Your task to perform on an android device: uninstall "DoorDash - Dasher" Image 0: 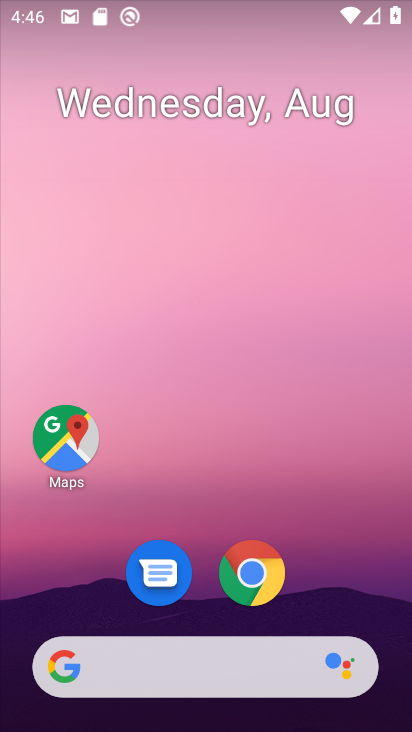
Step 0: drag from (178, 399) to (140, 161)
Your task to perform on an android device: uninstall "DoorDash - Dasher" Image 1: 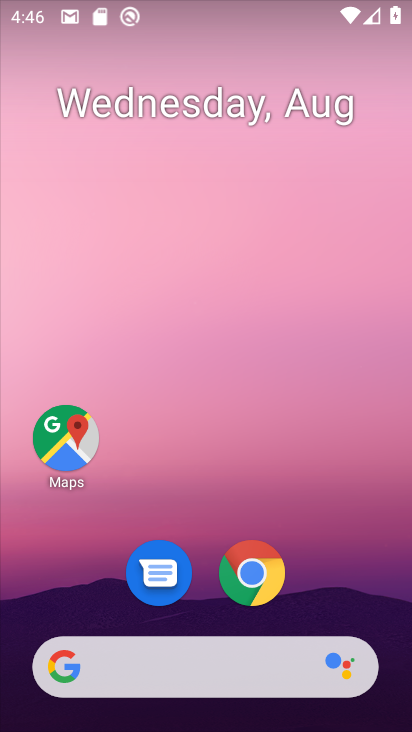
Step 1: drag from (182, 616) to (252, 9)
Your task to perform on an android device: uninstall "DoorDash - Dasher" Image 2: 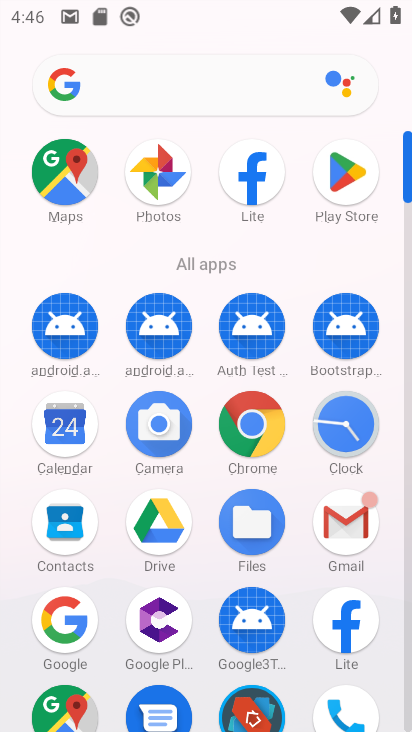
Step 2: click (340, 175)
Your task to perform on an android device: uninstall "DoorDash - Dasher" Image 3: 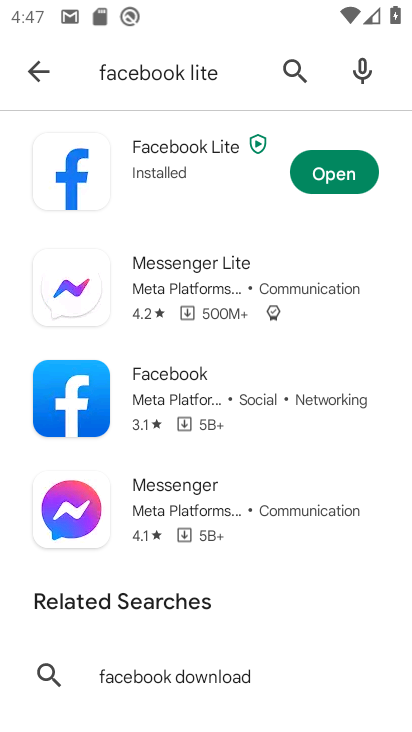
Step 3: click (30, 65)
Your task to perform on an android device: uninstall "DoorDash - Dasher" Image 4: 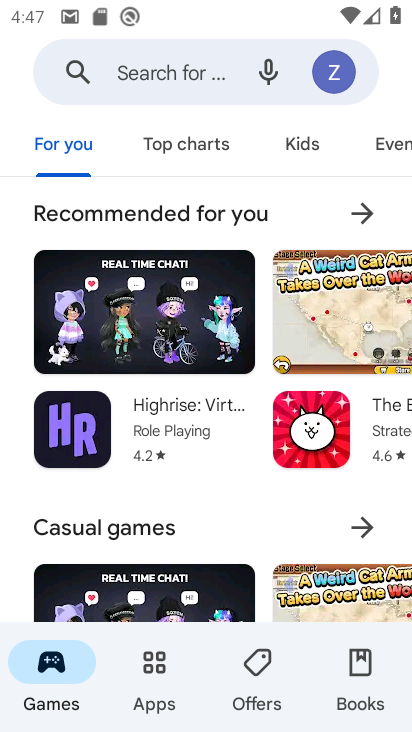
Step 4: click (160, 68)
Your task to perform on an android device: uninstall "DoorDash - Dasher" Image 5: 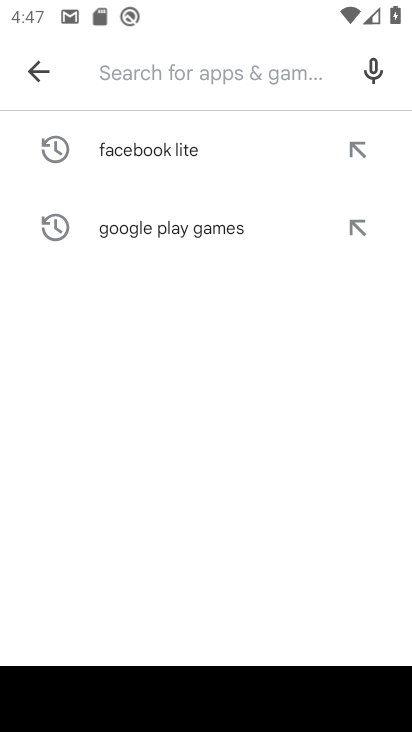
Step 5: type "DoorDash - Dasher"
Your task to perform on an android device: uninstall "DoorDash - Dasher" Image 6: 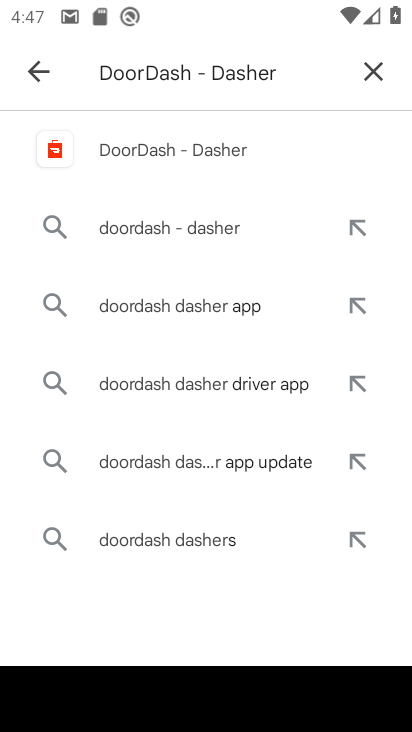
Step 6: click (146, 147)
Your task to perform on an android device: uninstall "DoorDash - Dasher" Image 7: 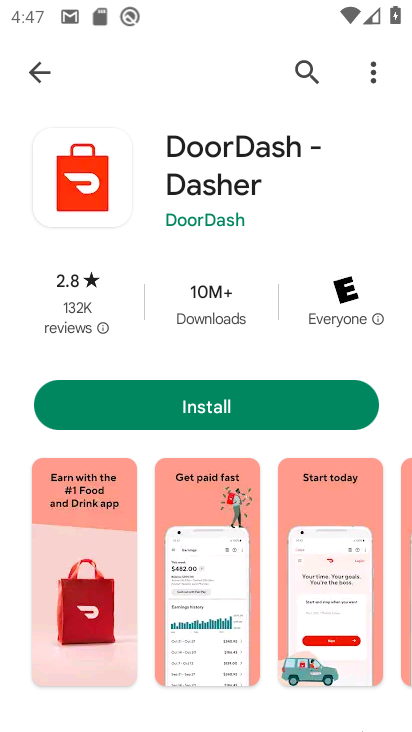
Step 7: task complete